Your task to perform on an android device: What's on my calendar today? Image 0: 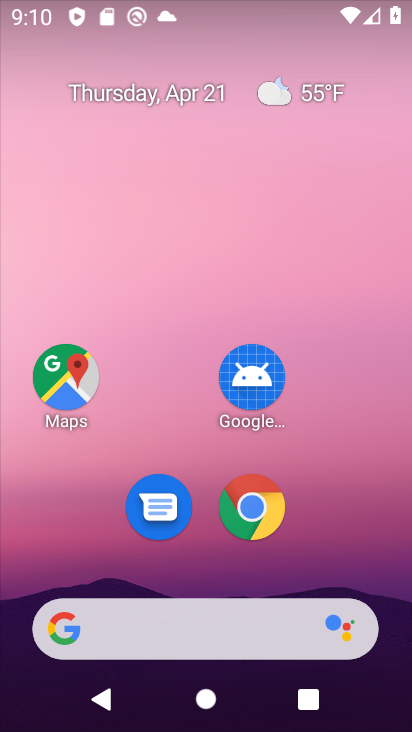
Step 0: drag from (325, 347) to (299, 105)
Your task to perform on an android device: What's on my calendar today? Image 1: 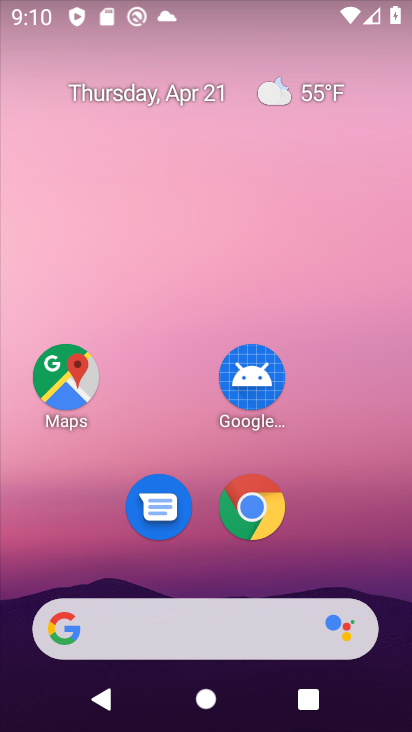
Step 1: drag from (244, 464) to (230, 157)
Your task to perform on an android device: What's on my calendar today? Image 2: 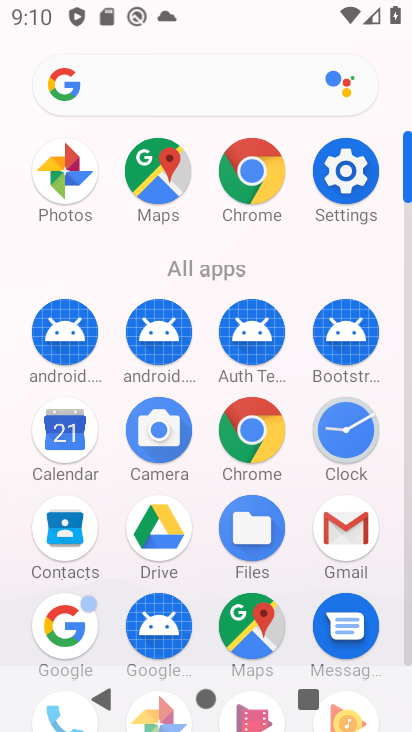
Step 2: click (59, 426)
Your task to perform on an android device: What's on my calendar today? Image 3: 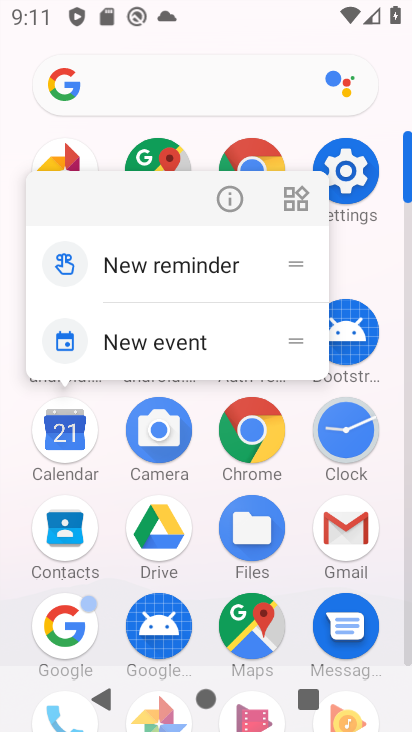
Step 3: click (60, 426)
Your task to perform on an android device: What's on my calendar today? Image 4: 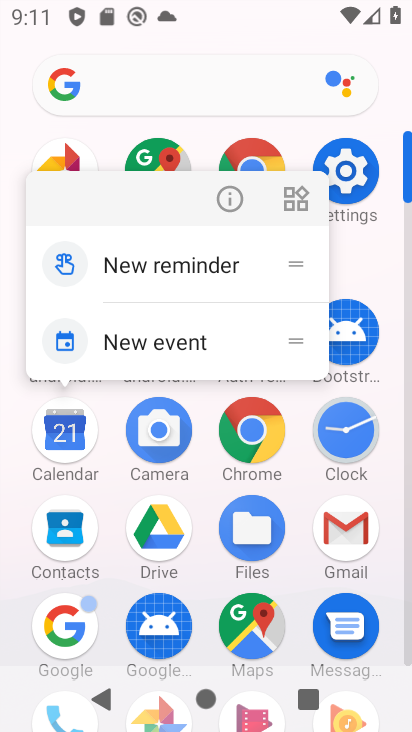
Step 4: click (61, 438)
Your task to perform on an android device: What's on my calendar today? Image 5: 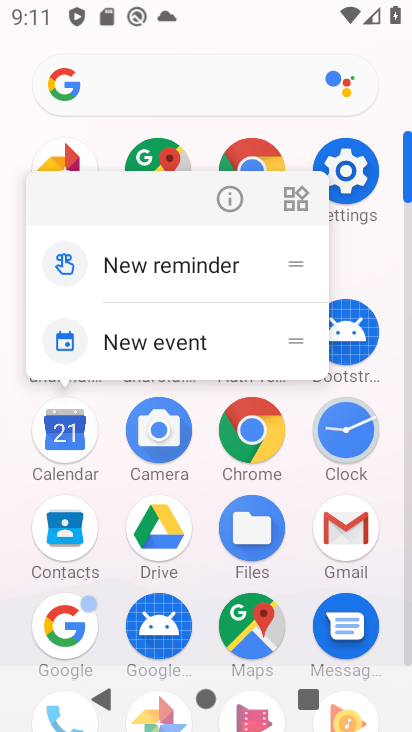
Step 5: click (61, 438)
Your task to perform on an android device: What's on my calendar today? Image 6: 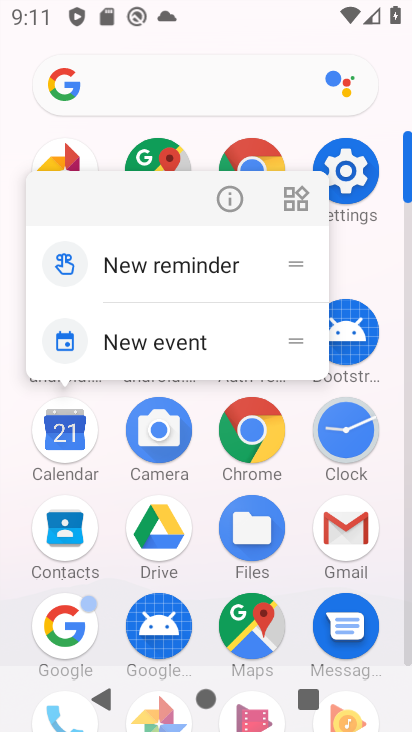
Step 6: click (64, 430)
Your task to perform on an android device: What's on my calendar today? Image 7: 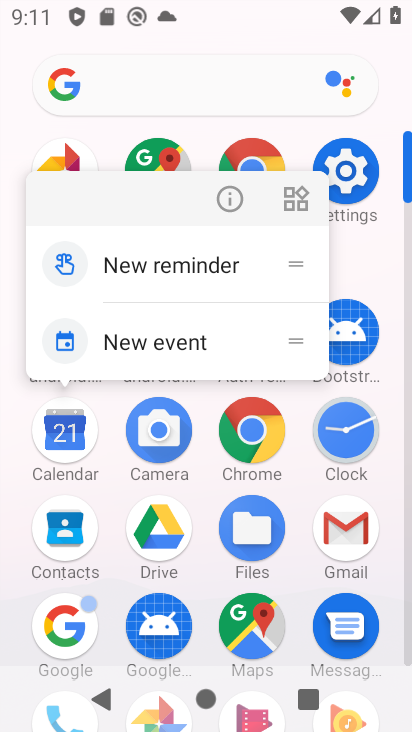
Step 7: click (73, 432)
Your task to perform on an android device: What's on my calendar today? Image 8: 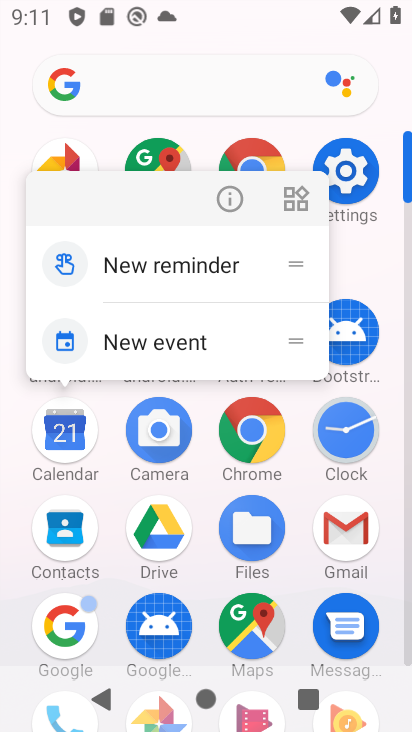
Step 8: click (62, 425)
Your task to perform on an android device: What's on my calendar today? Image 9: 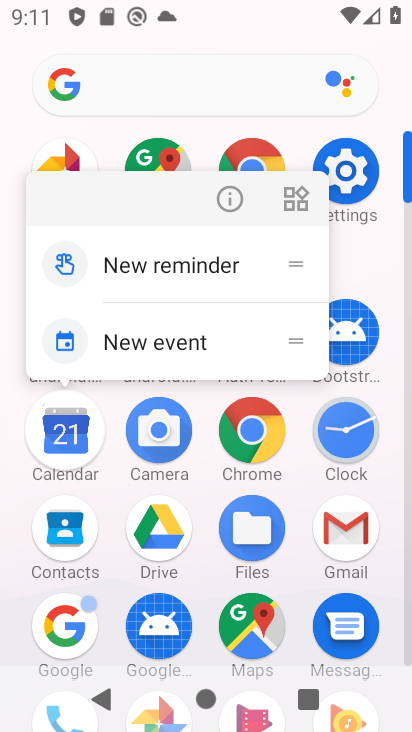
Step 9: click (53, 422)
Your task to perform on an android device: What's on my calendar today? Image 10: 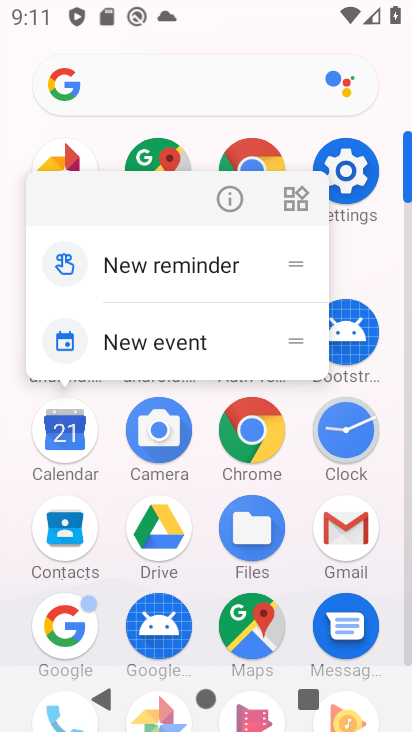
Step 10: click (53, 422)
Your task to perform on an android device: What's on my calendar today? Image 11: 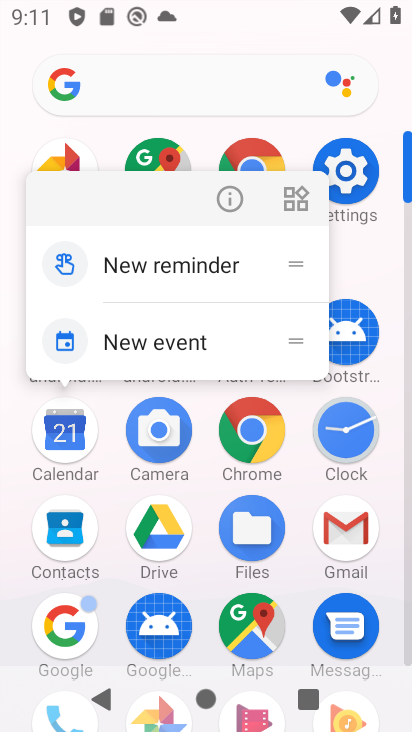
Step 11: click (68, 424)
Your task to perform on an android device: What's on my calendar today? Image 12: 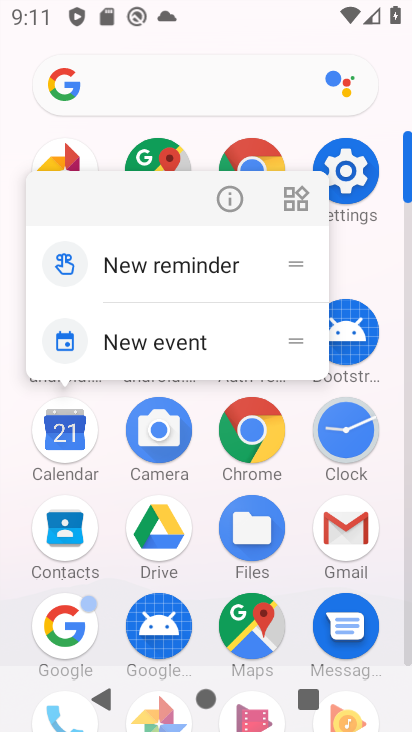
Step 12: click (68, 424)
Your task to perform on an android device: What's on my calendar today? Image 13: 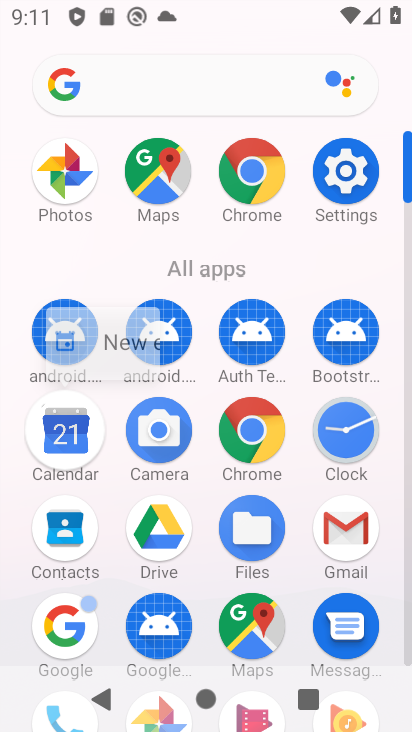
Step 13: click (68, 424)
Your task to perform on an android device: What's on my calendar today? Image 14: 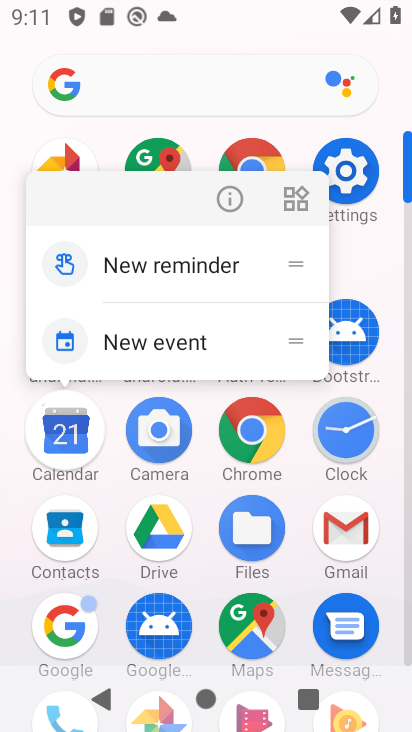
Step 14: click (68, 424)
Your task to perform on an android device: What's on my calendar today? Image 15: 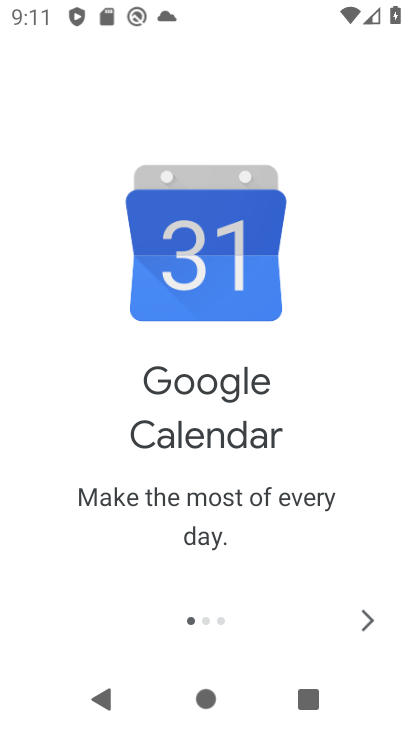
Step 15: click (374, 623)
Your task to perform on an android device: What's on my calendar today? Image 16: 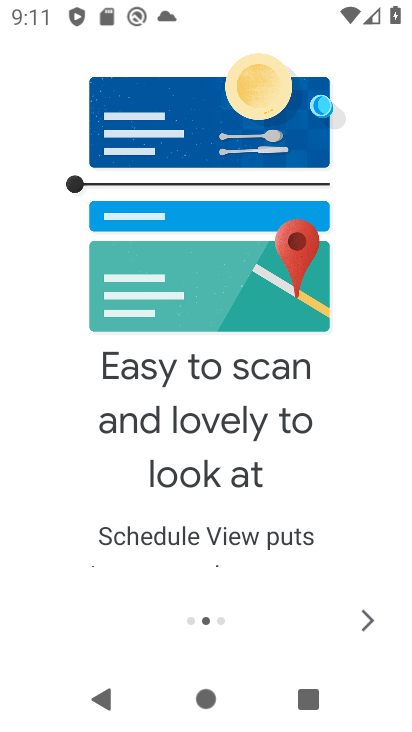
Step 16: click (374, 623)
Your task to perform on an android device: What's on my calendar today? Image 17: 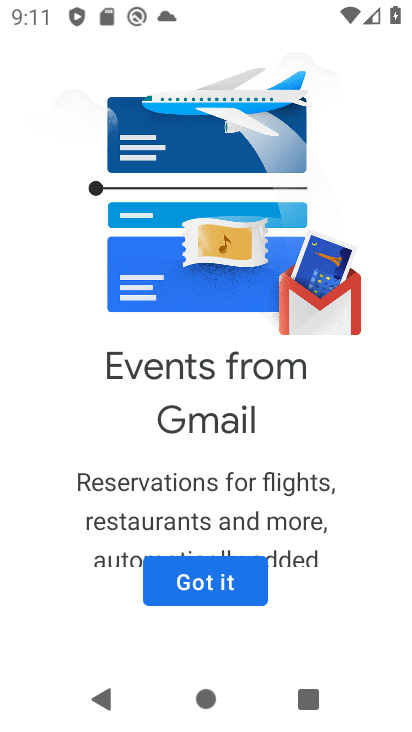
Step 17: click (374, 623)
Your task to perform on an android device: What's on my calendar today? Image 18: 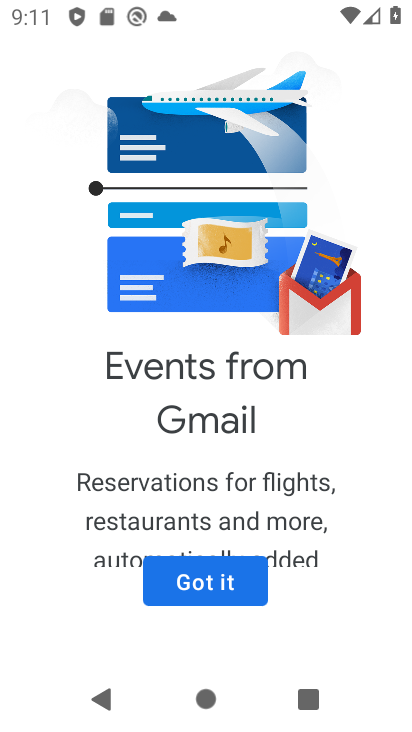
Step 18: click (206, 569)
Your task to perform on an android device: What's on my calendar today? Image 19: 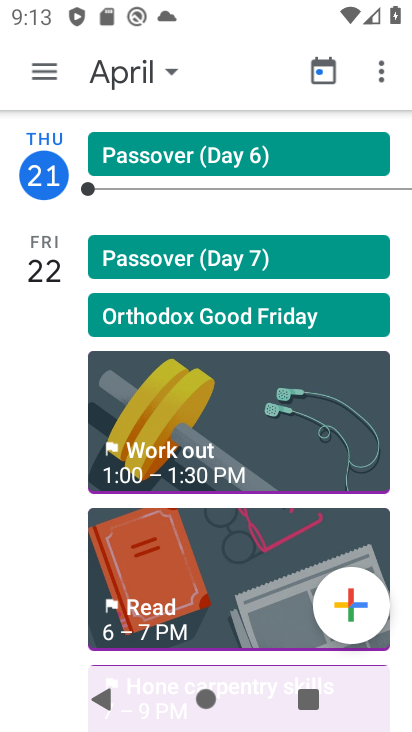
Step 19: click (43, 71)
Your task to perform on an android device: What's on my calendar today? Image 20: 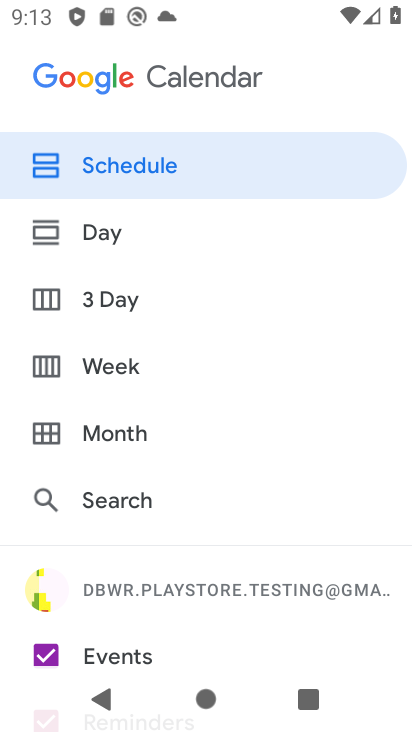
Step 20: click (126, 431)
Your task to perform on an android device: What's on my calendar today? Image 21: 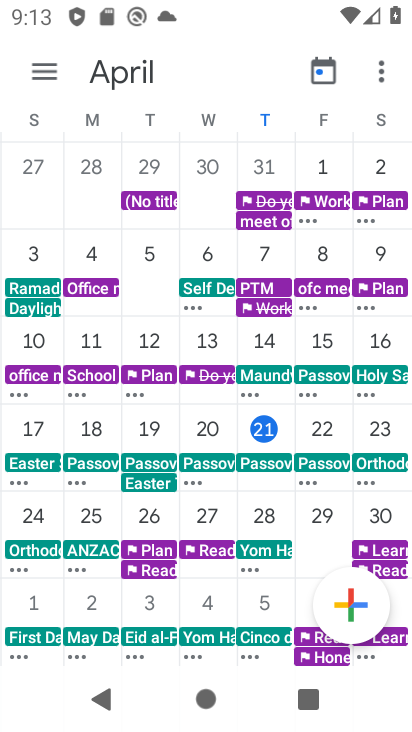
Step 21: click (319, 419)
Your task to perform on an android device: What's on my calendar today? Image 22: 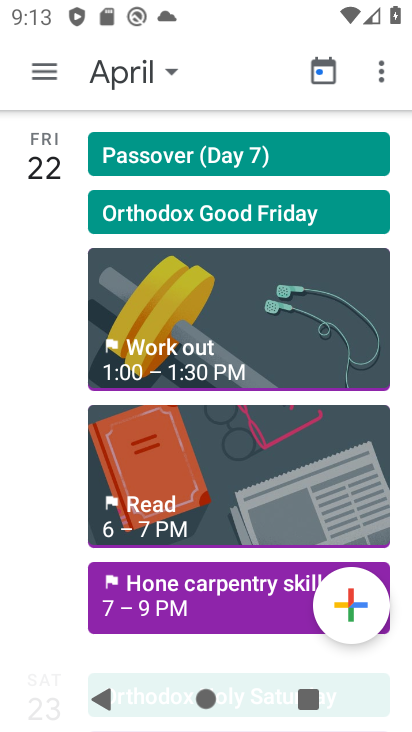
Step 22: task complete